Your task to perform on an android device: View the shopping cart on costco.com. Add "corsair k70" to the cart on costco.com, then select checkout. Image 0: 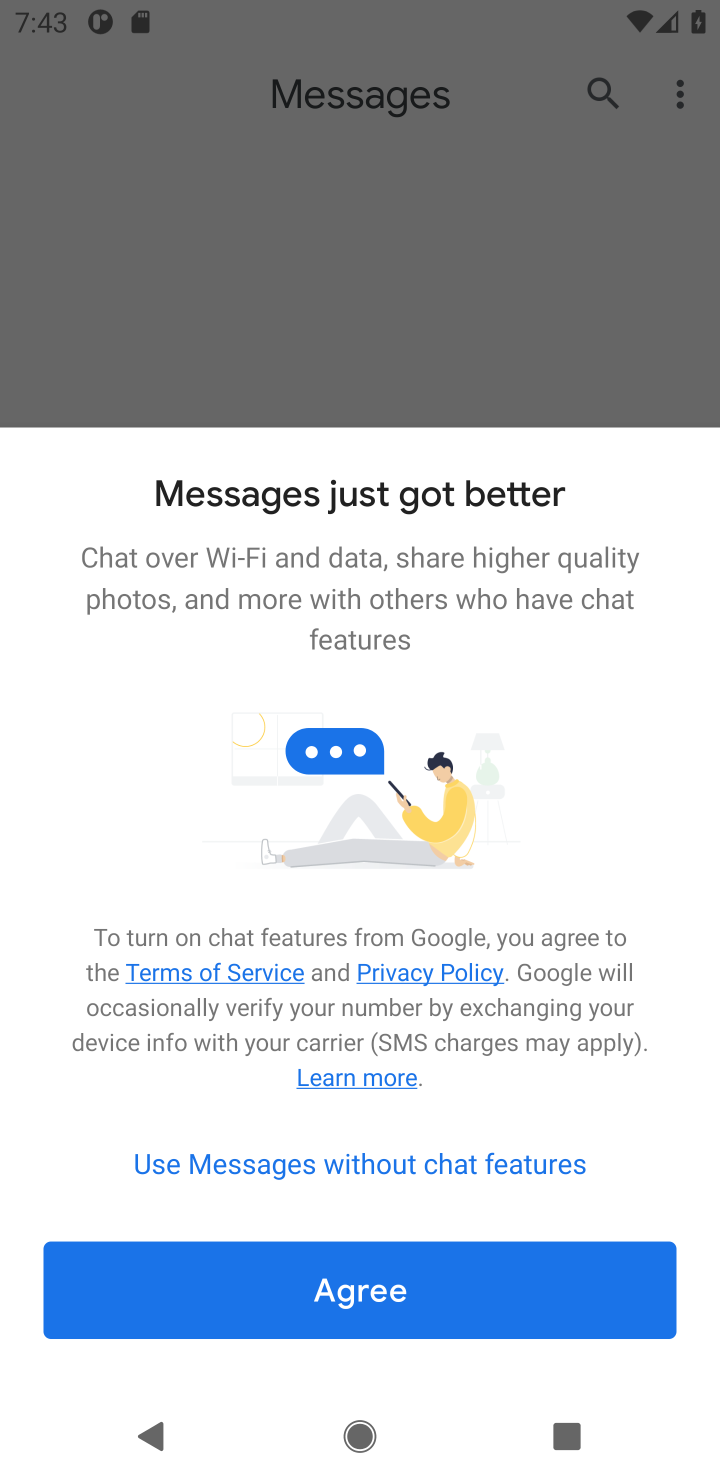
Step 0: press home button
Your task to perform on an android device: View the shopping cart on costco.com. Add "corsair k70" to the cart on costco.com, then select checkout. Image 1: 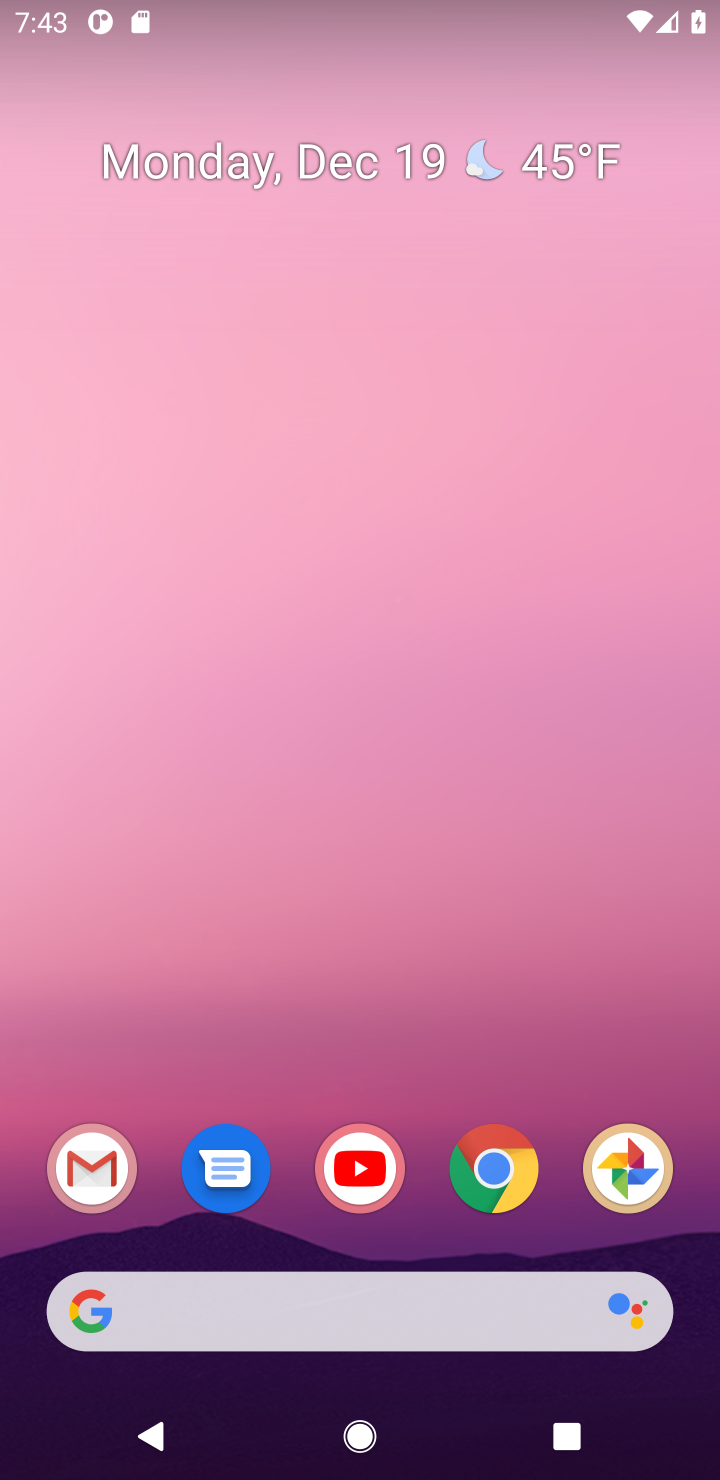
Step 1: click (501, 1186)
Your task to perform on an android device: View the shopping cart on costco.com. Add "corsair k70" to the cart on costco.com, then select checkout. Image 2: 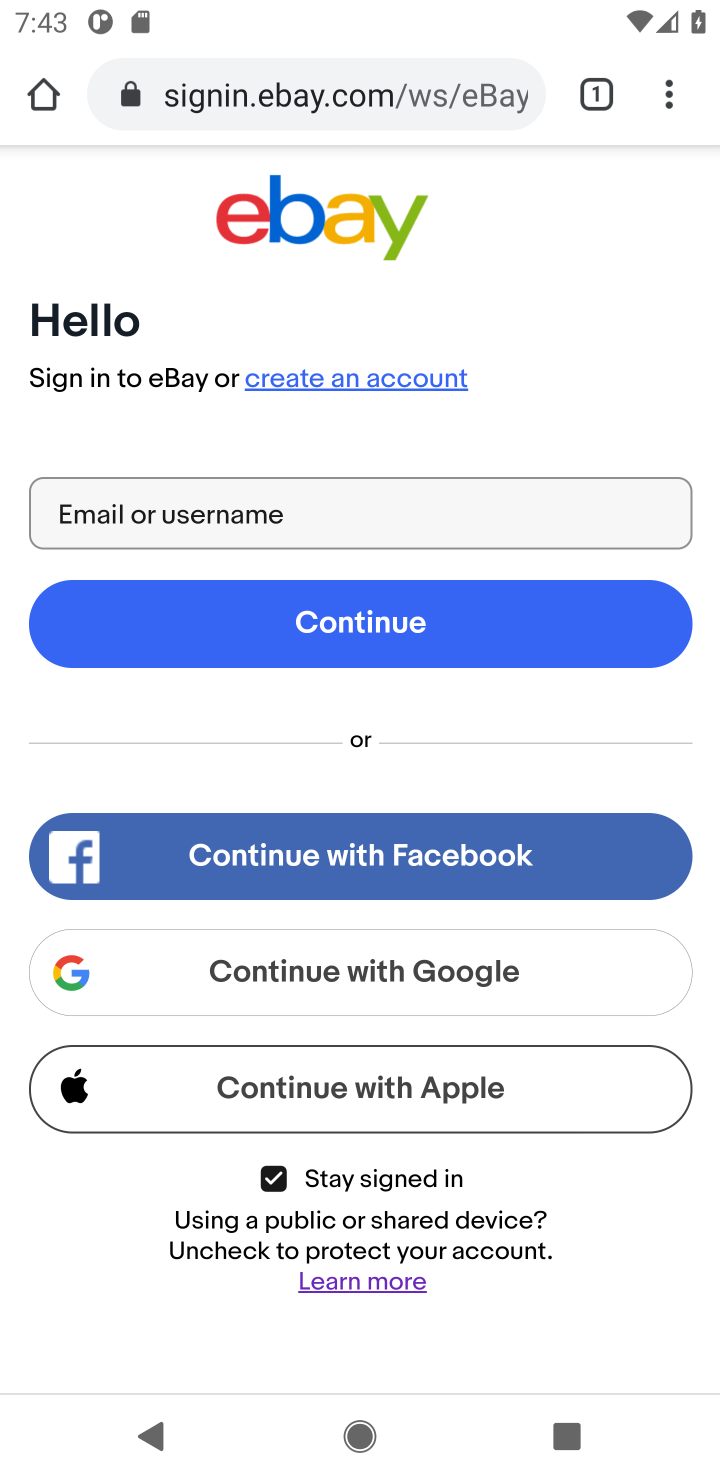
Step 2: click (197, 91)
Your task to perform on an android device: View the shopping cart on costco.com. Add "corsair k70" to the cart on costco.com, then select checkout. Image 3: 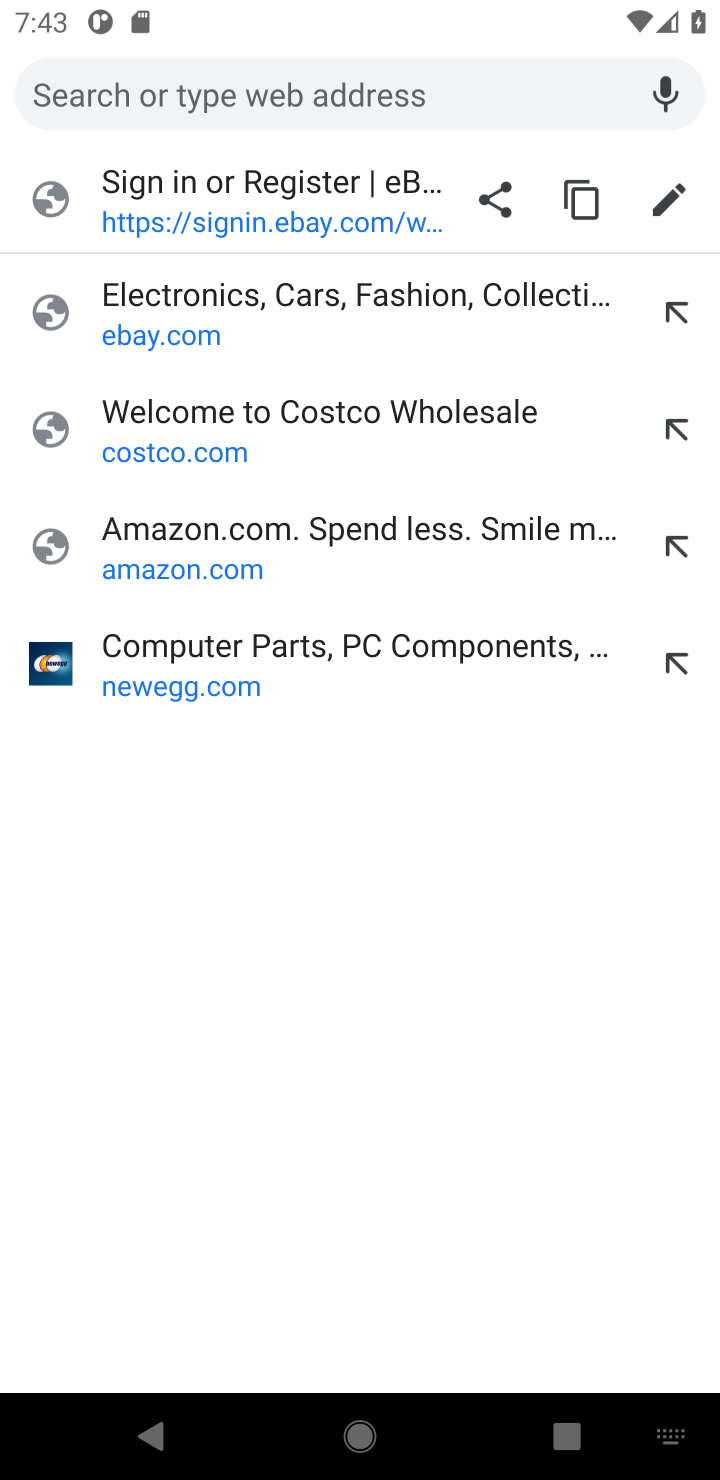
Step 3: click (151, 412)
Your task to perform on an android device: View the shopping cart on costco.com. Add "corsair k70" to the cart on costco.com, then select checkout. Image 4: 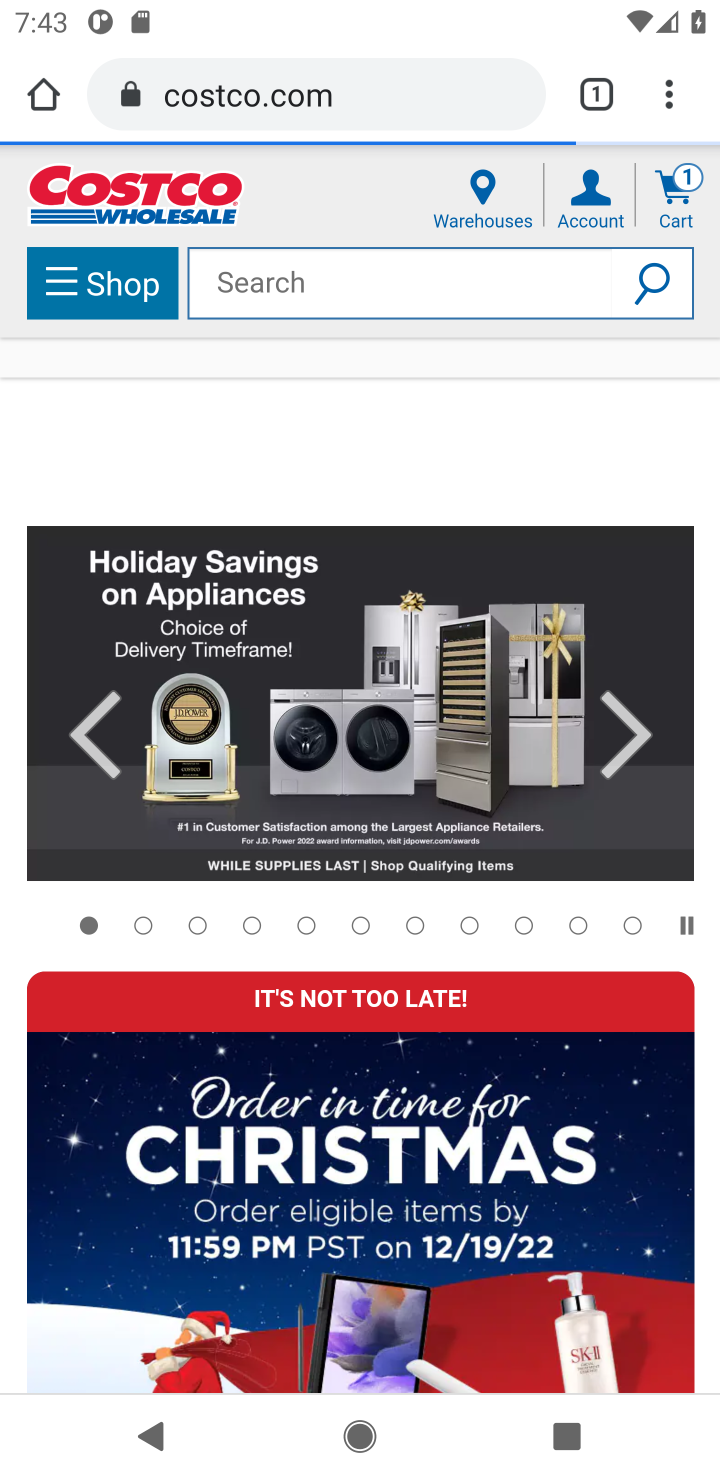
Step 4: click (670, 211)
Your task to perform on an android device: View the shopping cart on costco.com. Add "corsair k70" to the cart on costco.com, then select checkout. Image 5: 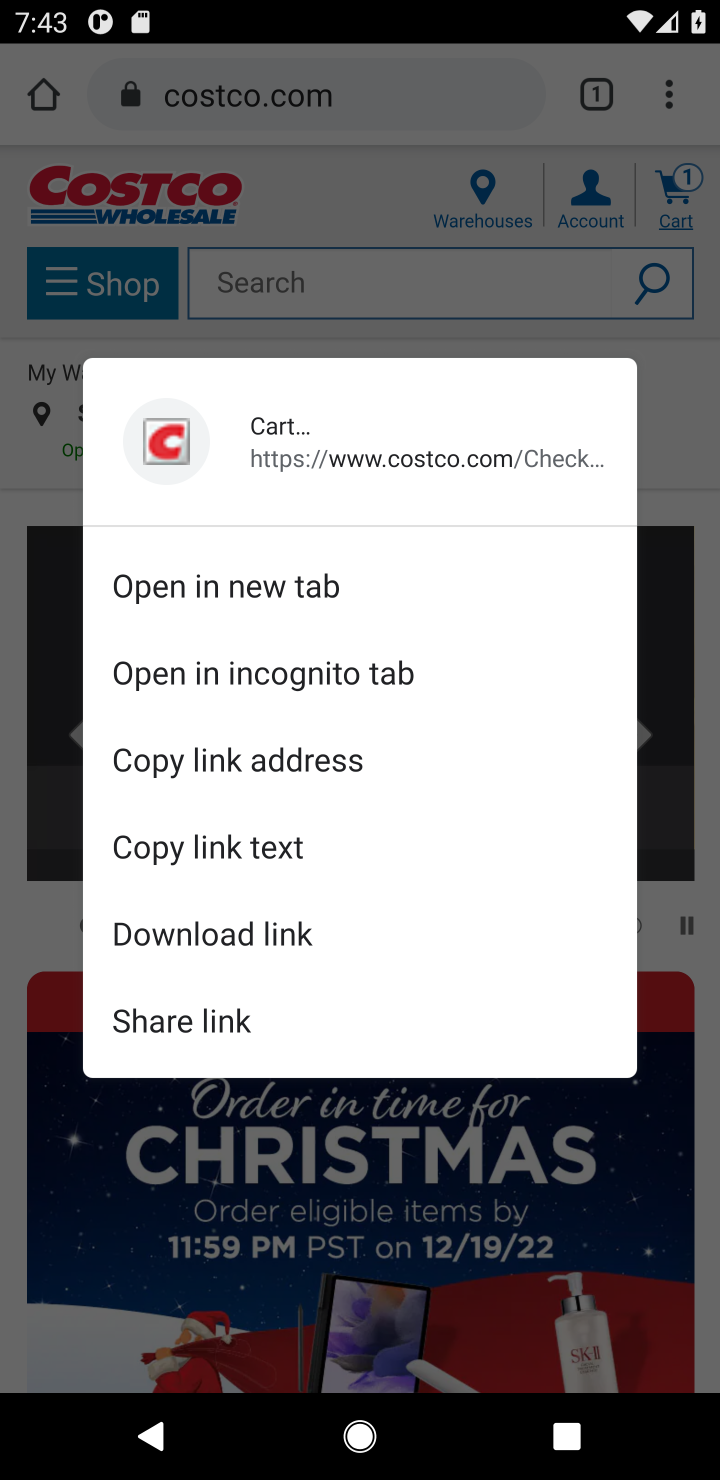
Step 5: click (670, 209)
Your task to perform on an android device: View the shopping cart on costco.com. Add "corsair k70" to the cart on costco.com, then select checkout. Image 6: 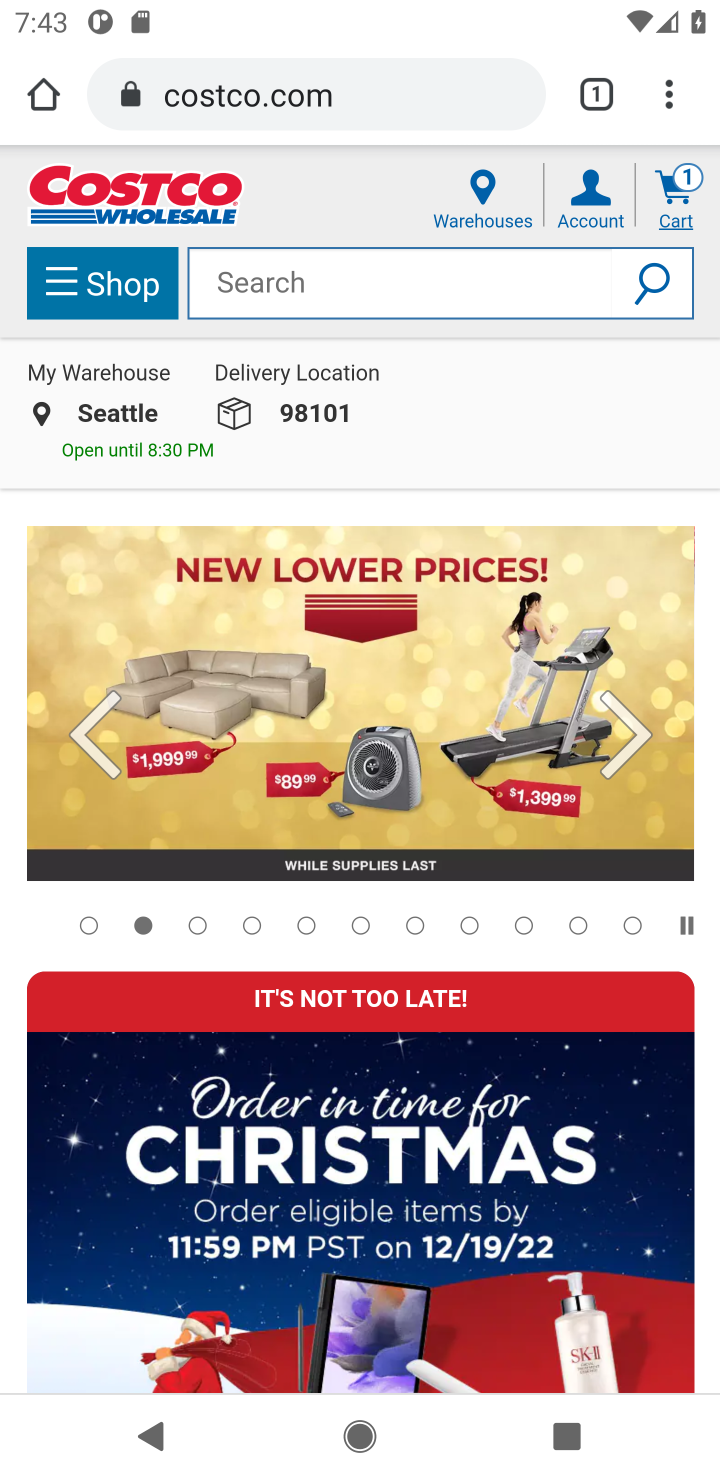
Step 6: click (674, 208)
Your task to perform on an android device: View the shopping cart on costco.com. Add "corsair k70" to the cart on costco.com, then select checkout. Image 7: 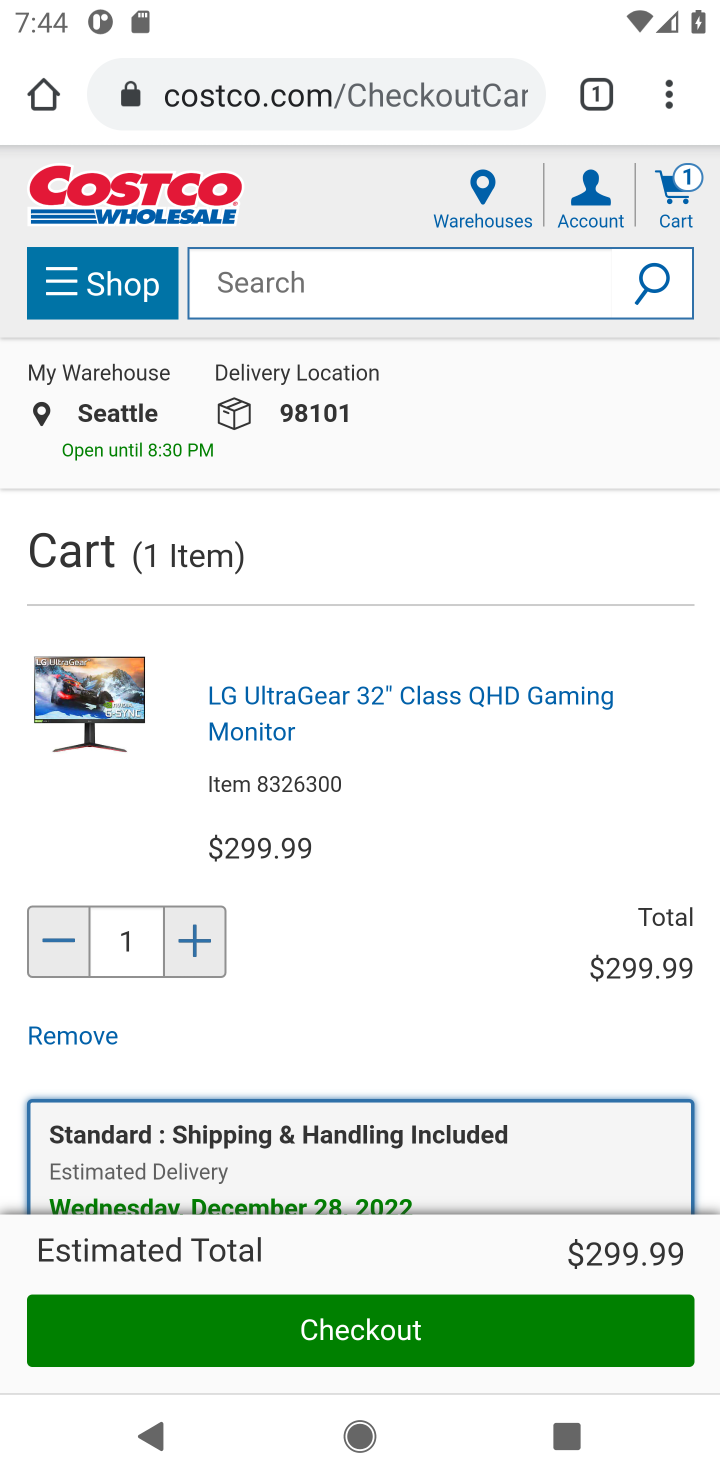
Step 7: click (237, 291)
Your task to perform on an android device: View the shopping cart on costco.com. Add "corsair k70" to the cart on costco.com, then select checkout. Image 8: 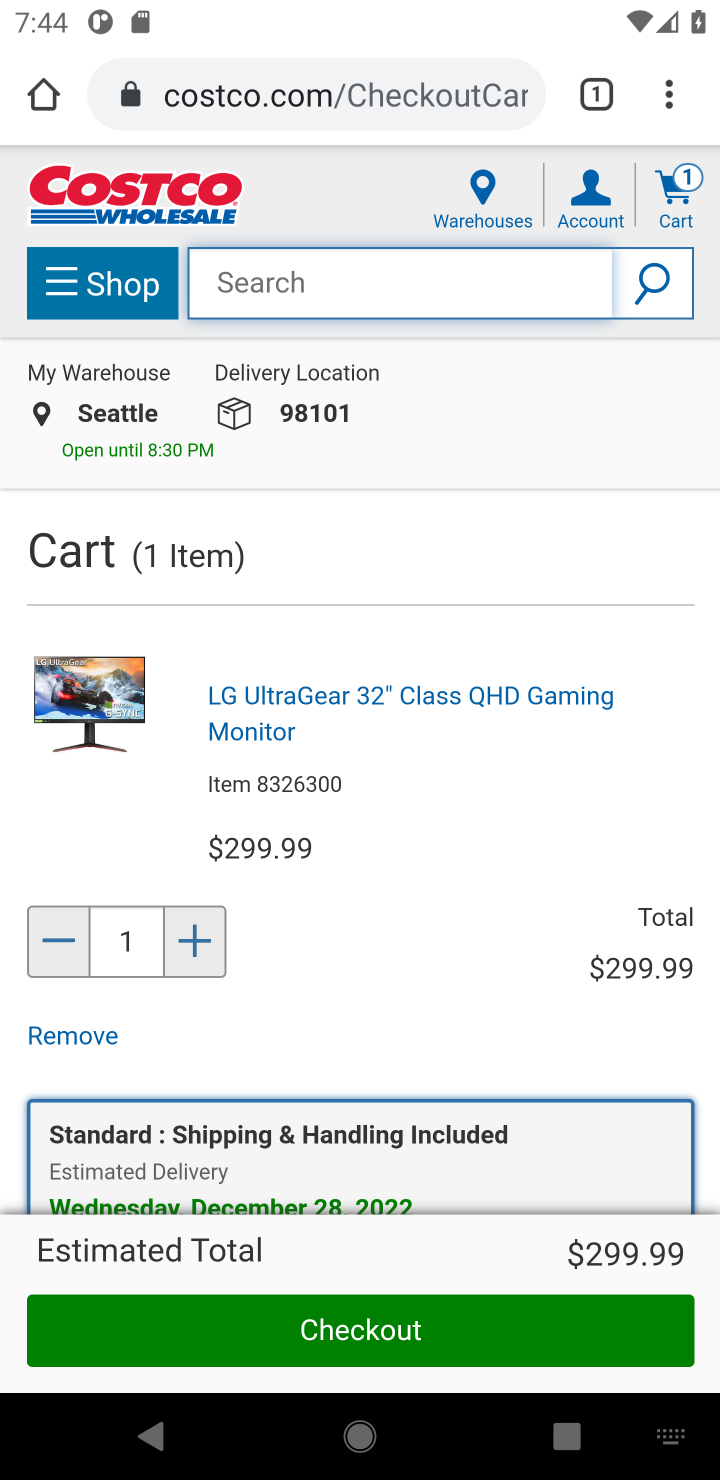
Step 8: type "corsair k70"
Your task to perform on an android device: View the shopping cart on costco.com. Add "corsair k70" to the cart on costco.com, then select checkout. Image 9: 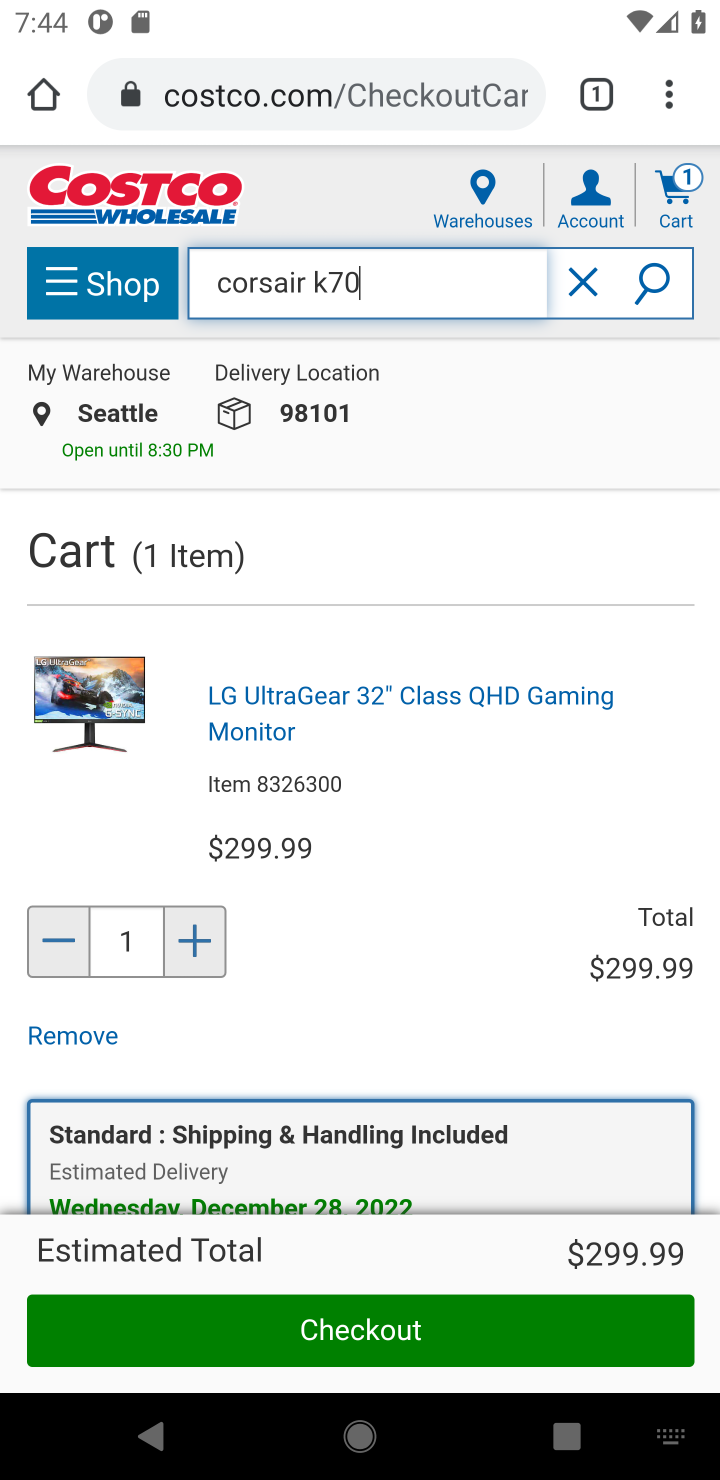
Step 9: click (651, 284)
Your task to perform on an android device: View the shopping cart on costco.com. Add "corsair k70" to the cart on costco.com, then select checkout. Image 10: 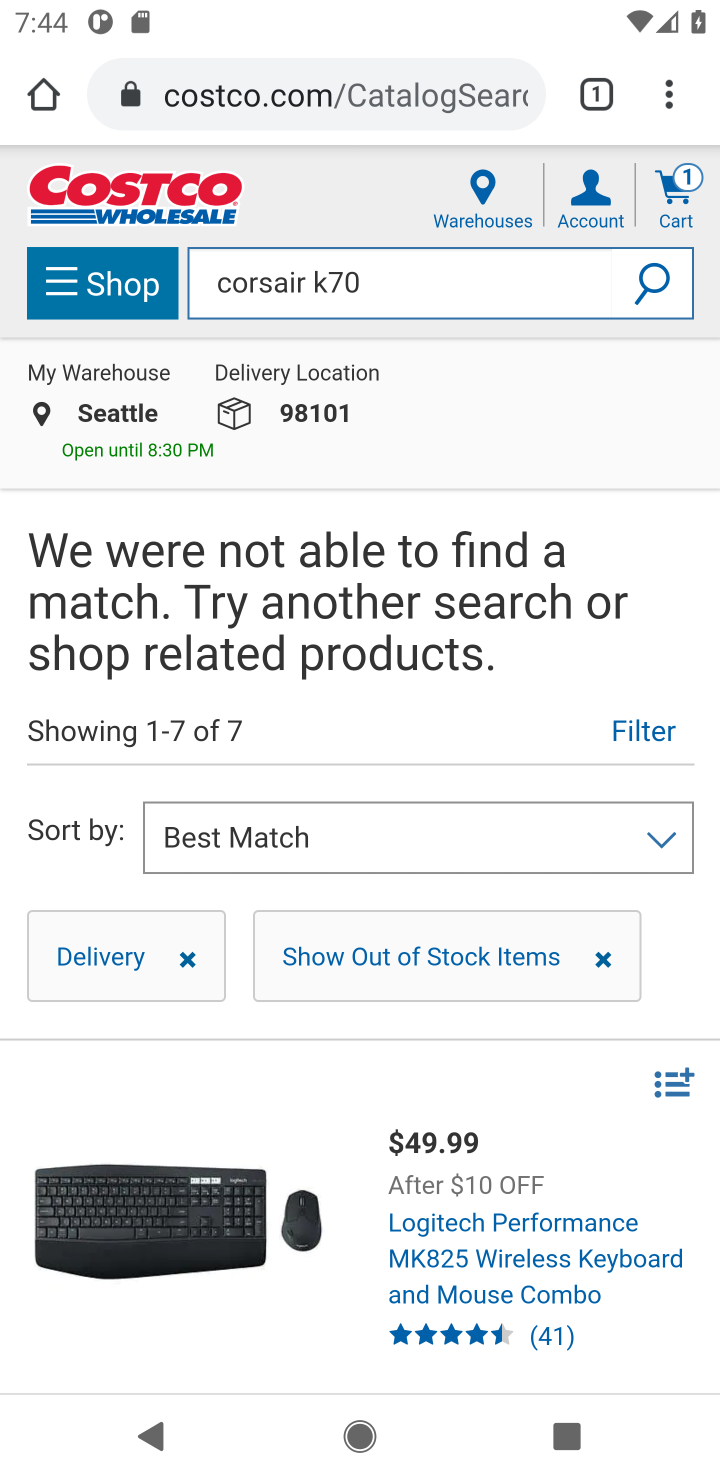
Step 10: task complete